Your task to perform on an android device: Open Google Chrome Image 0: 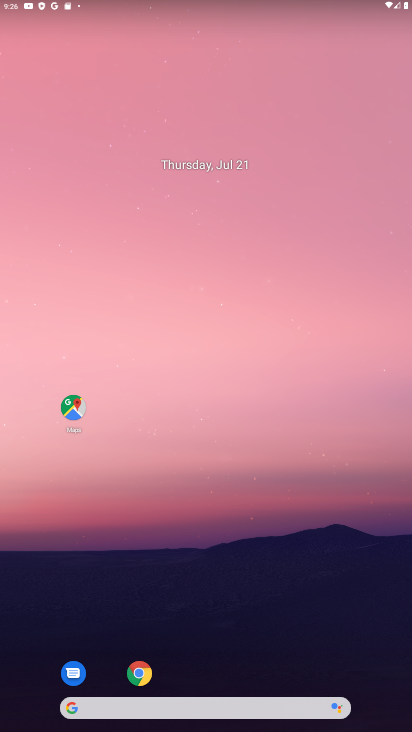
Step 0: press home button
Your task to perform on an android device: Open Google Chrome Image 1: 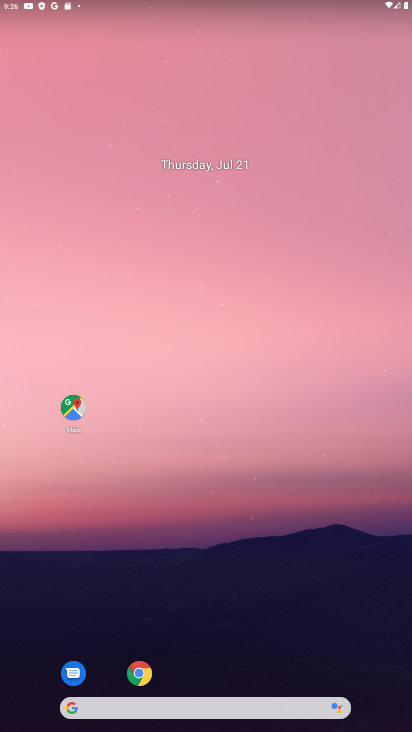
Step 1: click (140, 667)
Your task to perform on an android device: Open Google Chrome Image 2: 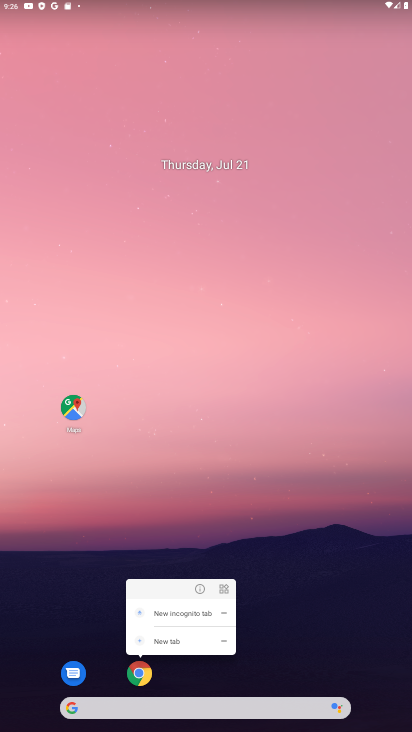
Step 2: click (285, 649)
Your task to perform on an android device: Open Google Chrome Image 3: 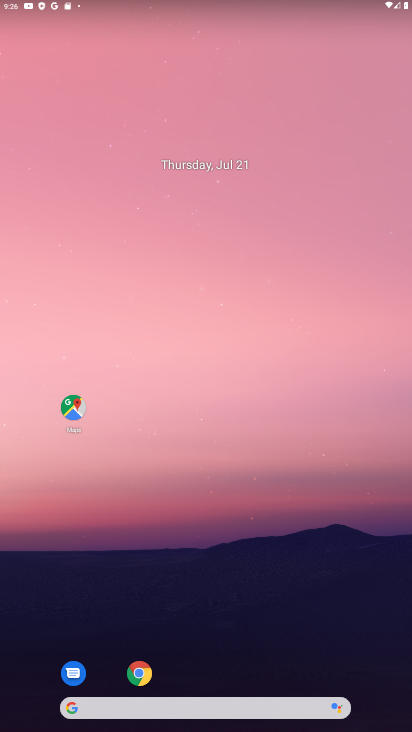
Step 3: drag from (302, 674) to (303, 253)
Your task to perform on an android device: Open Google Chrome Image 4: 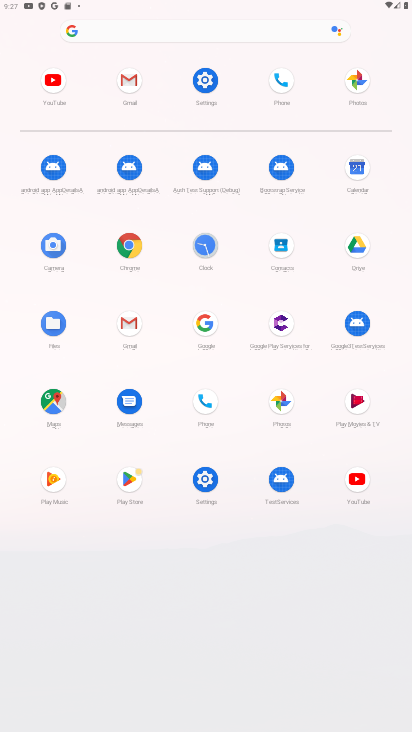
Step 4: click (125, 243)
Your task to perform on an android device: Open Google Chrome Image 5: 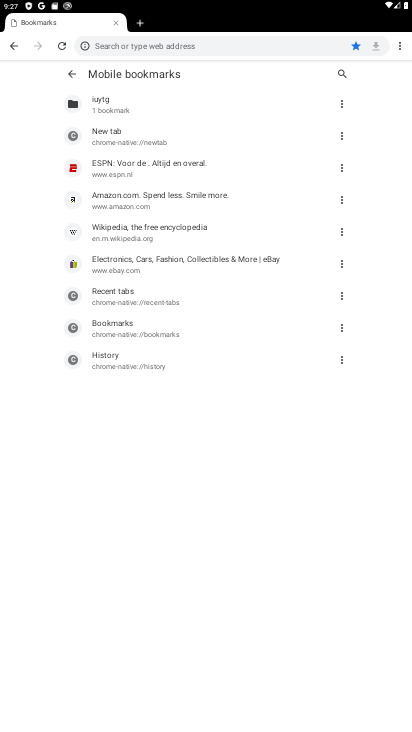
Step 5: click (141, 22)
Your task to perform on an android device: Open Google Chrome Image 6: 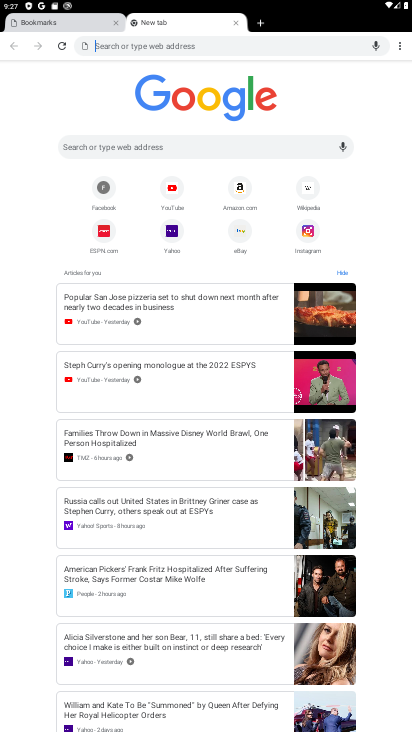
Step 6: task complete